Your task to perform on an android device: turn on translation in the chrome app Image 0: 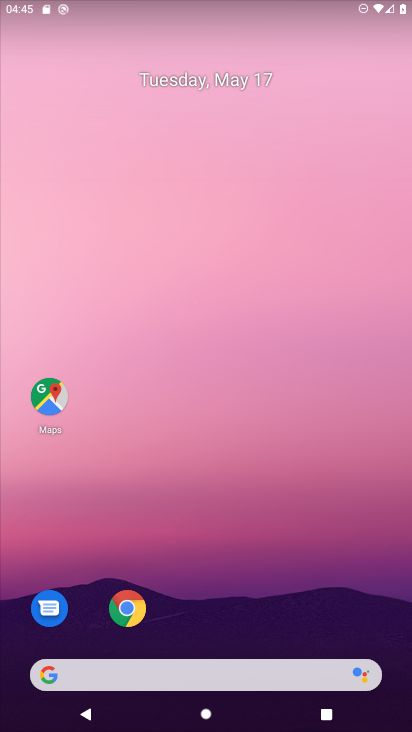
Step 0: click (136, 611)
Your task to perform on an android device: turn on translation in the chrome app Image 1: 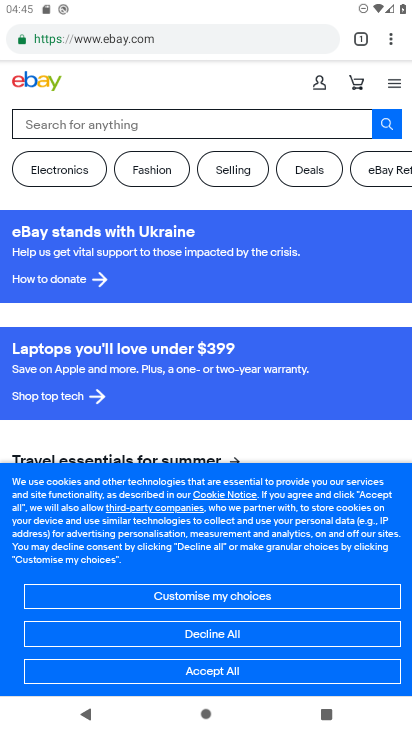
Step 1: click (391, 35)
Your task to perform on an android device: turn on translation in the chrome app Image 2: 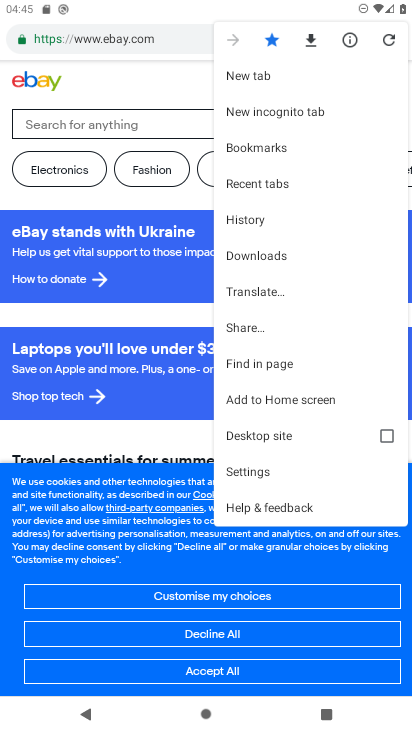
Step 2: click (249, 474)
Your task to perform on an android device: turn on translation in the chrome app Image 3: 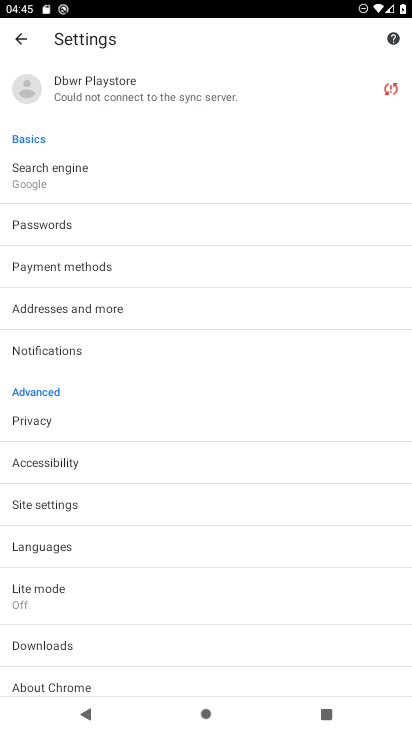
Step 3: click (36, 550)
Your task to perform on an android device: turn on translation in the chrome app Image 4: 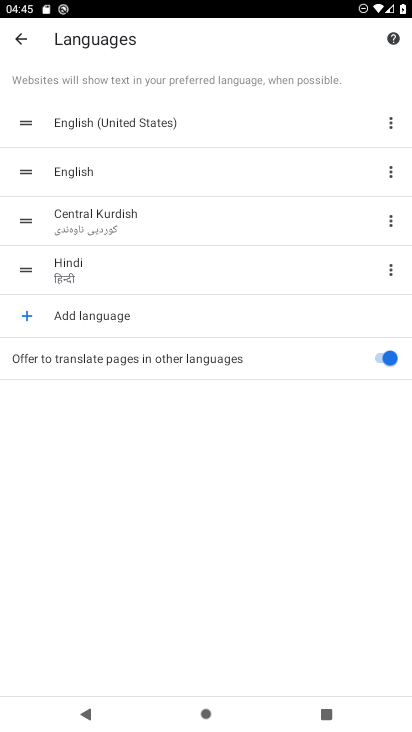
Step 4: task complete